Your task to perform on an android device: Go to Yahoo.com Image 0: 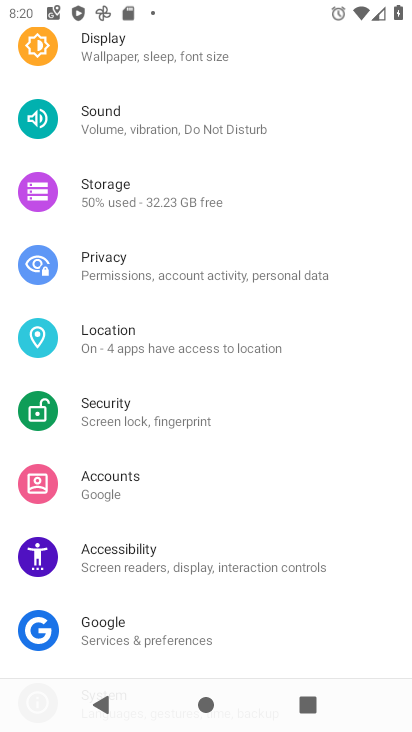
Step 0: press home button
Your task to perform on an android device: Go to Yahoo.com Image 1: 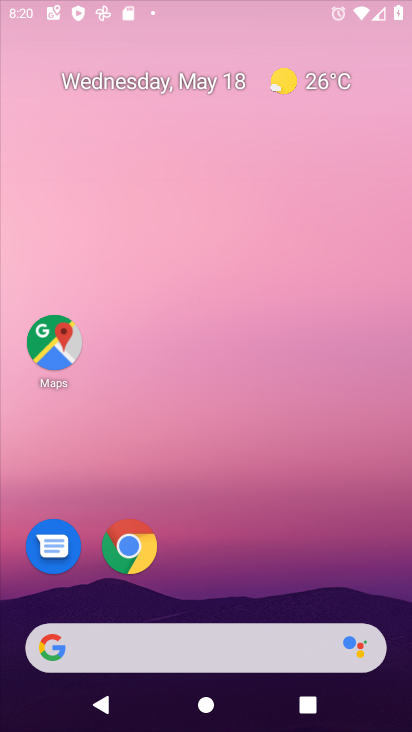
Step 1: drag from (384, 644) to (329, 80)
Your task to perform on an android device: Go to Yahoo.com Image 2: 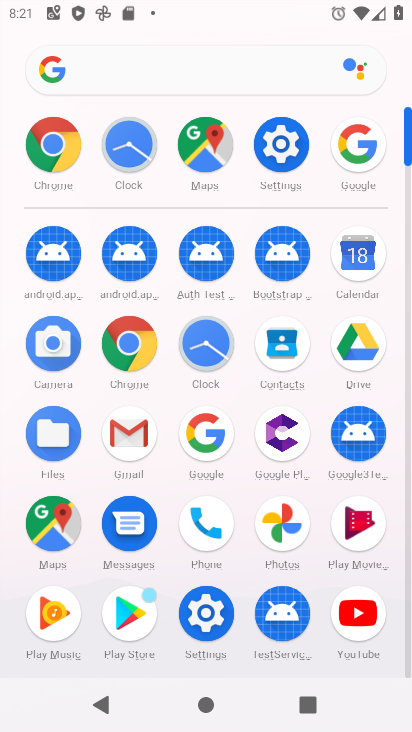
Step 2: click (145, 365)
Your task to perform on an android device: Go to Yahoo.com Image 3: 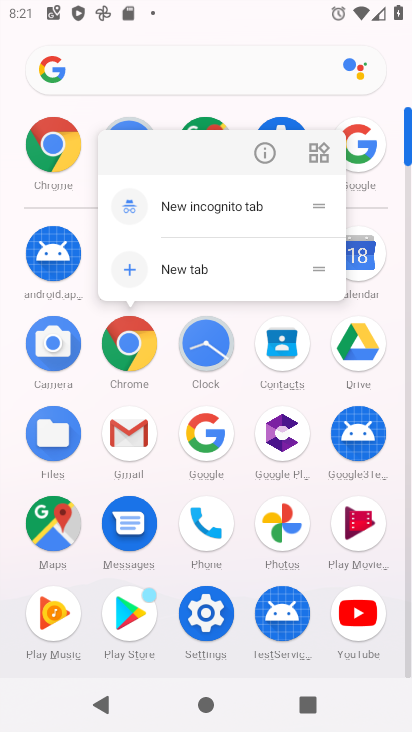
Step 3: click (137, 349)
Your task to perform on an android device: Go to Yahoo.com Image 4: 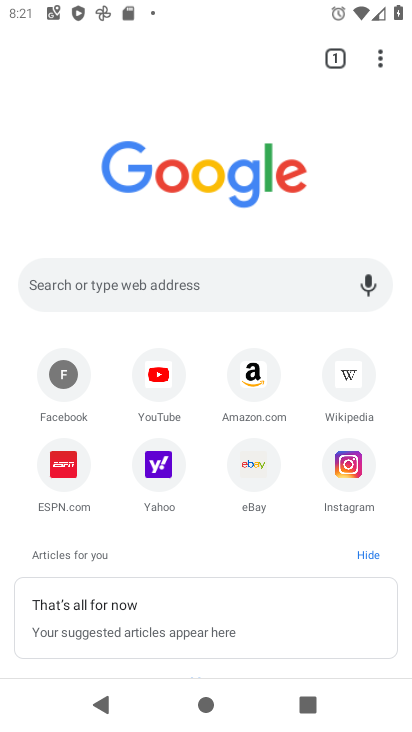
Step 4: click (150, 470)
Your task to perform on an android device: Go to Yahoo.com Image 5: 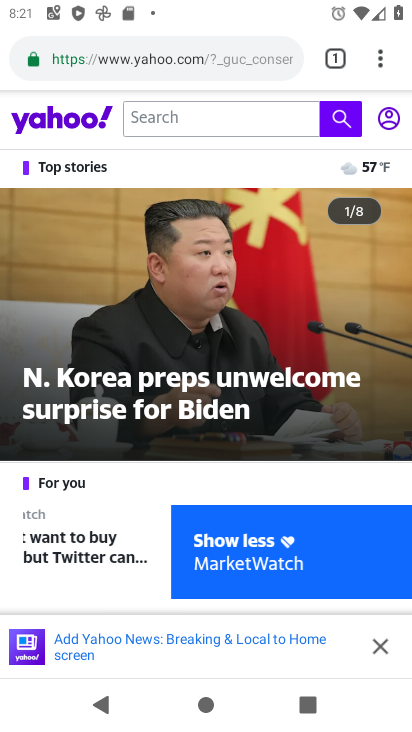
Step 5: task complete